Your task to perform on an android device: Open privacy settings Image 0: 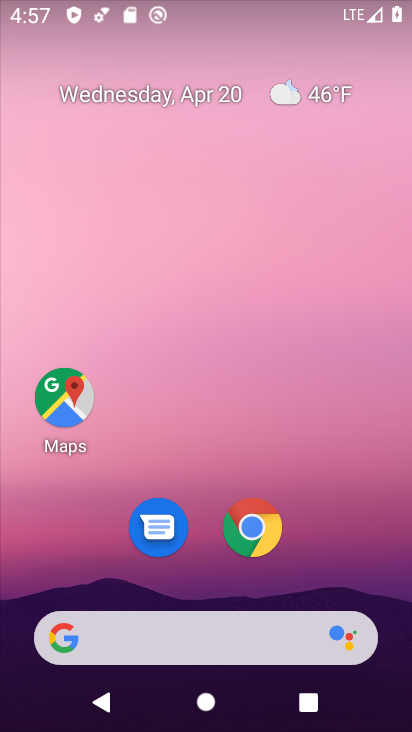
Step 0: drag from (204, 575) to (210, 120)
Your task to perform on an android device: Open privacy settings Image 1: 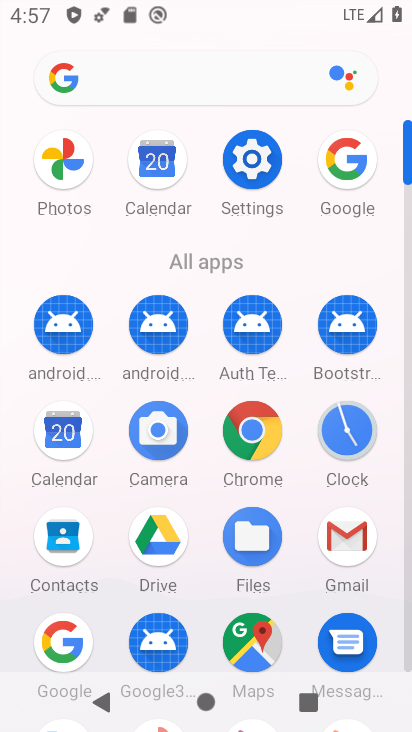
Step 1: click (251, 152)
Your task to perform on an android device: Open privacy settings Image 2: 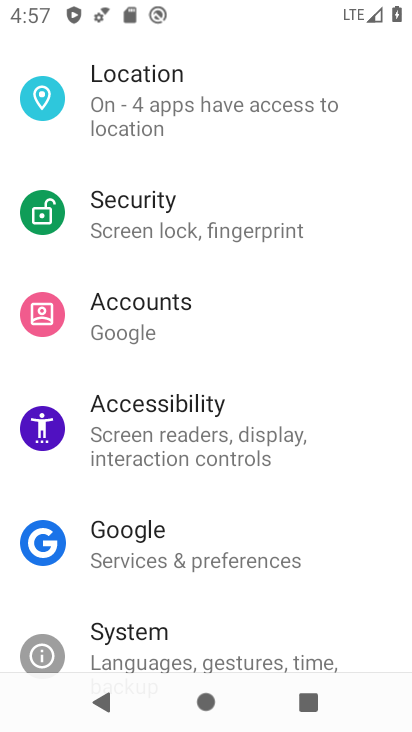
Step 2: drag from (240, 495) to (236, 97)
Your task to perform on an android device: Open privacy settings Image 3: 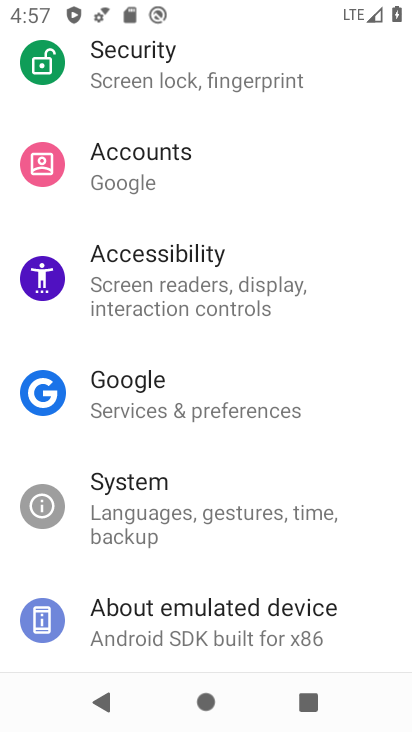
Step 3: drag from (262, 221) to (276, 684)
Your task to perform on an android device: Open privacy settings Image 4: 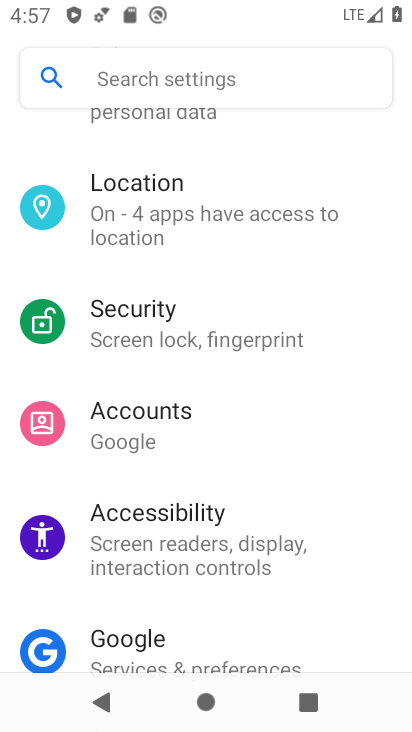
Step 4: drag from (243, 153) to (232, 695)
Your task to perform on an android device: Open privacy settings Image 5: 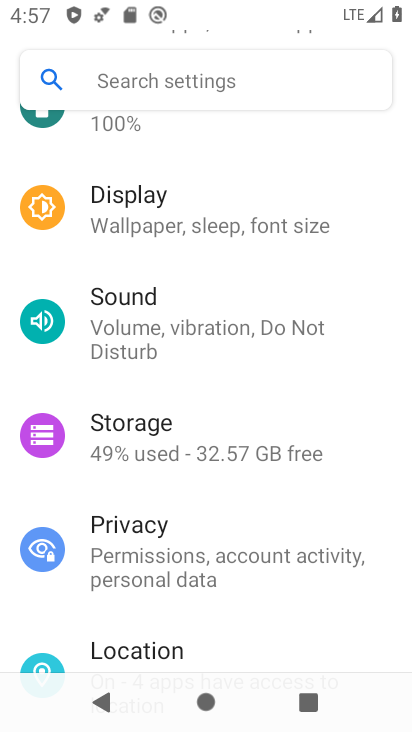
Step 5: click (167, 520)
Your task to perform on an android device: Open privacy settings Image 6: 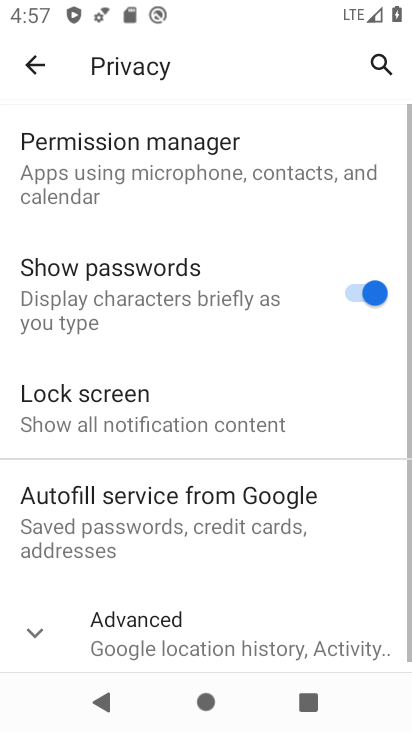
Step 6: task complete